Your task to perform on an android device: delete browsing data in the chrome app Image 0: 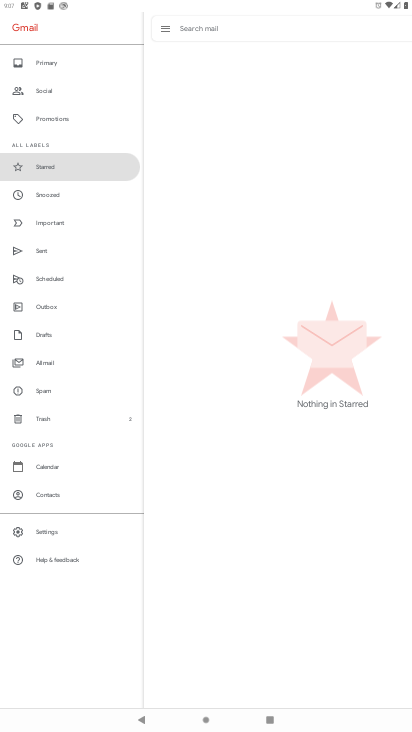
Step 0: press home button
Your task to perform on an android device: delete browsing data in the chrome app Image 1: 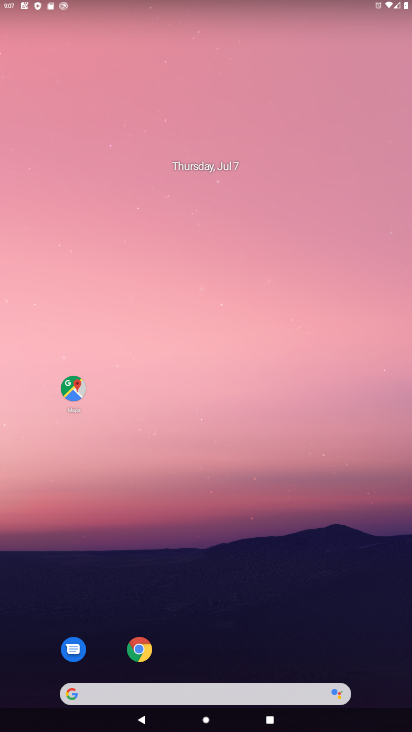
Step 1: drag from (260, 666) to (290, 99)
Your task to perform on an android device: delete browsing data in the chrome app Image 2: 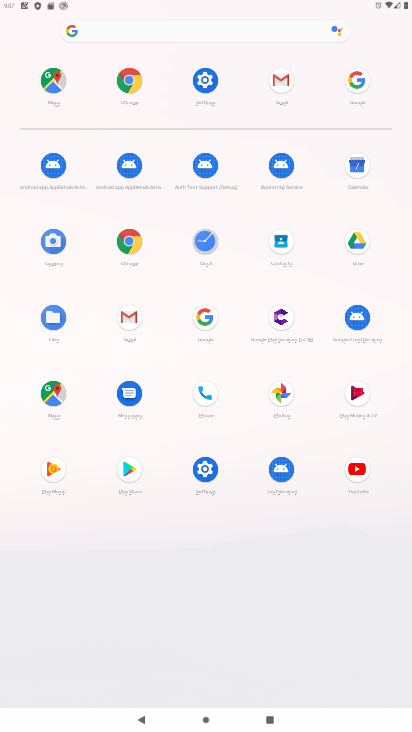
Step 2: click (131, 244)
Your task to perform on an android device: delete browsing data in the chrome app Image 3: 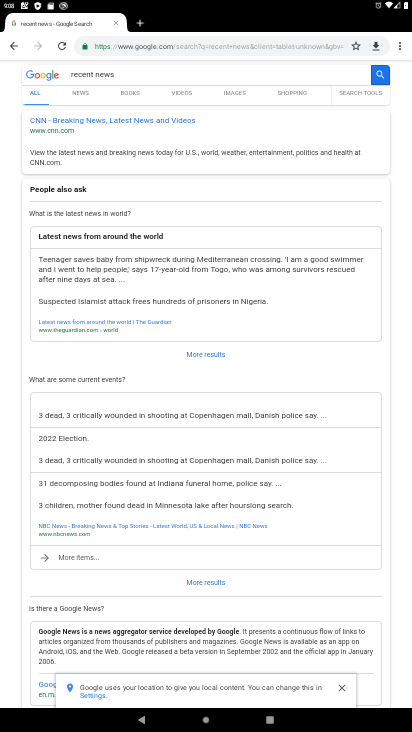
Step 3: drag from (398, 45) to (333, 145)
Your task to perform on an android device: delete browsing data in the chrome app Image 4: 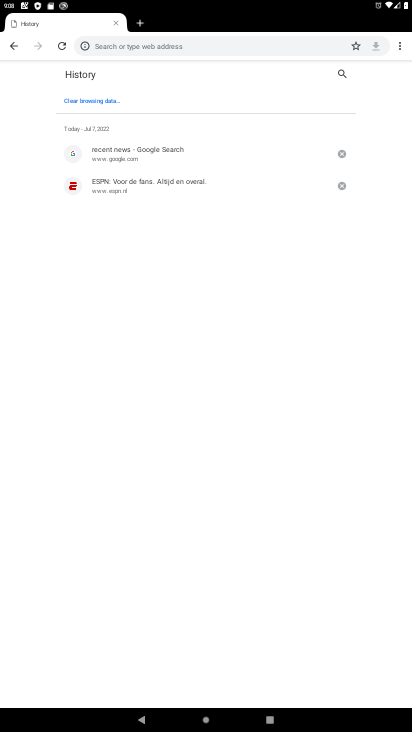
Step 4: click (96, 101)
Your task to perform on an android device: delete browsing data in the chrome app Image 5: 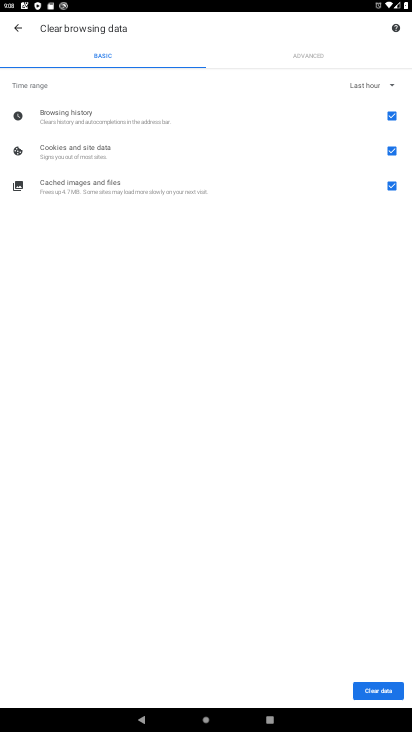
Step 5: click (370, 685)
Your task to perform on an android device: delete browsing data in the chrome app Image 6: 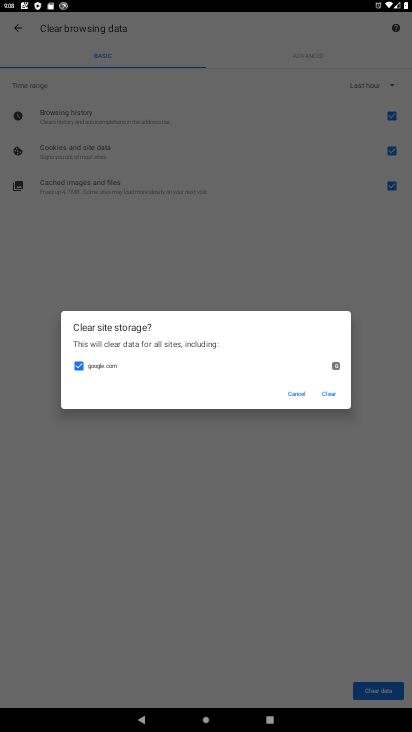
Step 6: click (328, 393)
Your task to perform on an android device: delete browsing data in the chrome app Image 7: 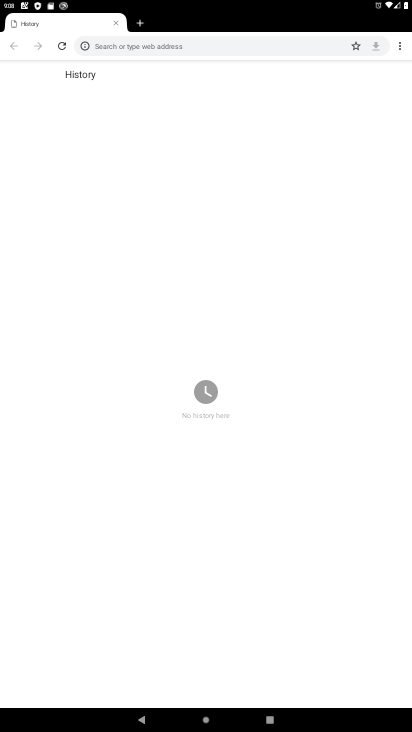
Step 7: task complete